Your task to perform on an android device: When is my next meeting? Image 0: 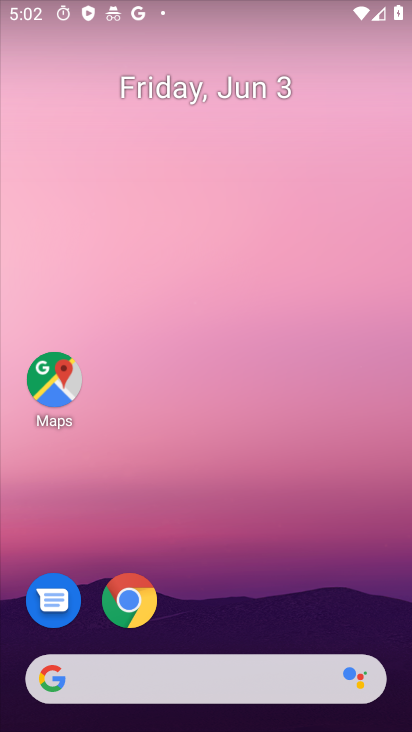
Step 0: drag from (385, 652) to (273, 120)
Your task to perform on an android device: When is my next meeting? Image 1: 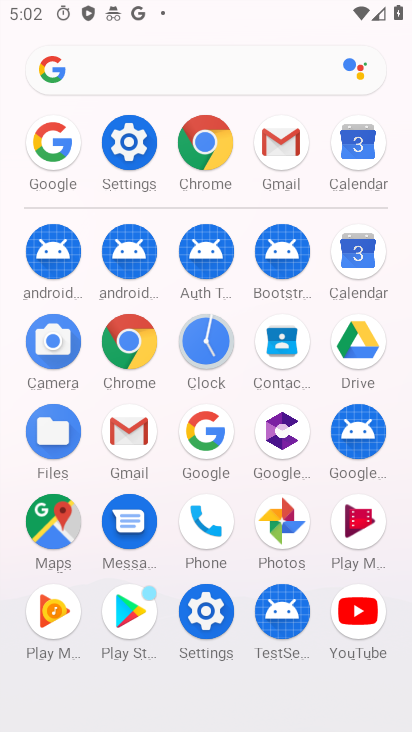
Step 1: click (348, 251)
Your task to perform on an android device: When is my next meeting? Image 2: 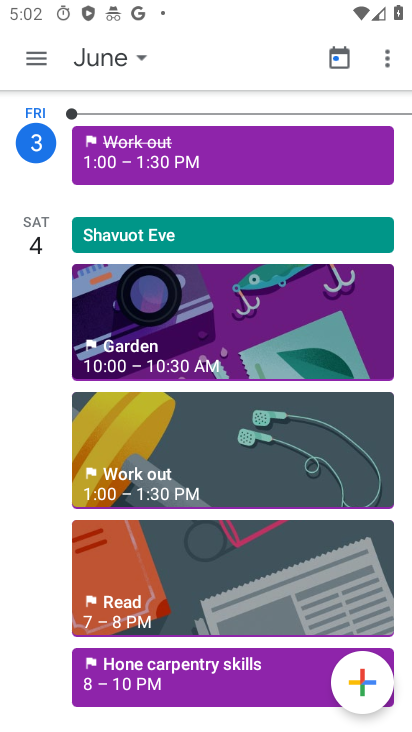
Step 2: click (32, 45)
Your task to perform on an android device: When is my next meeting? Image 3: 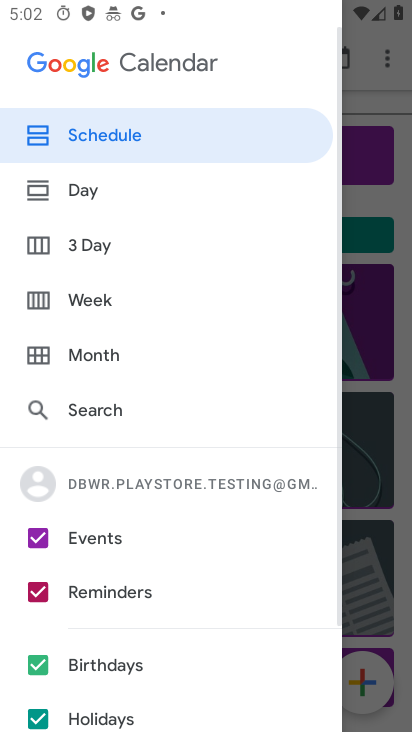
Step 3: click (76, 132)
Your task to perform on an android device: When is my next meeting? Image 4: 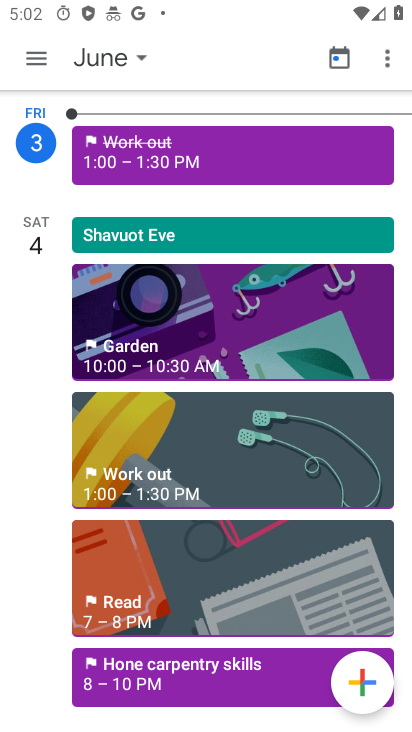
Step 4: task complete